Your task to perform on an android device: Show me recent news Image 0: 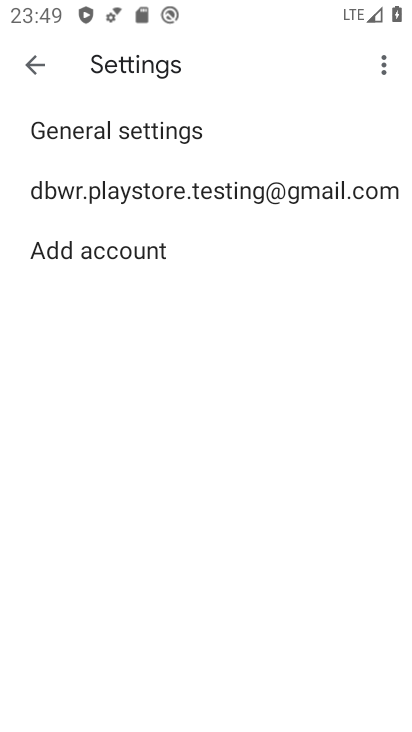
Step 0: press home button
Your task to perform on an android device: Show me recent news Image 1: 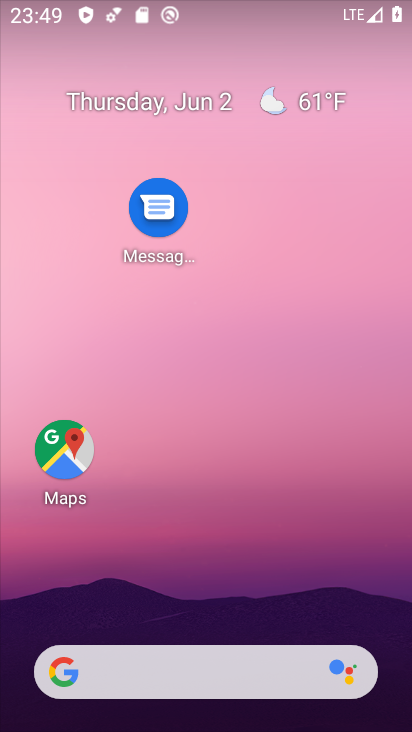
Step 1: click (188, 649)
Your task to perform on an android device: Show me recent news Image 2: 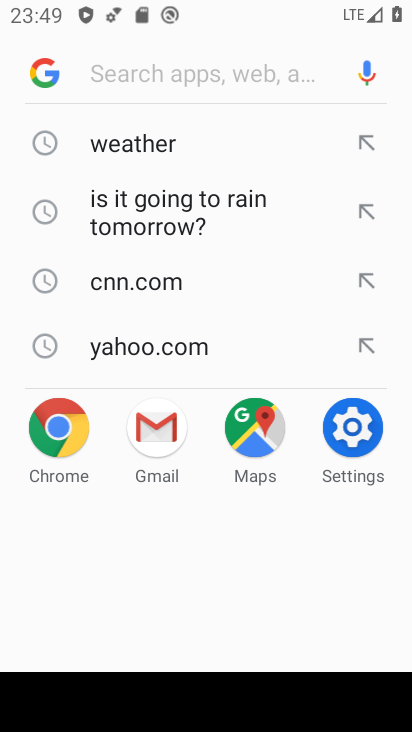
Step 2: type "recents news"
Your task to perform on an android device: Show me recent news Image 3: 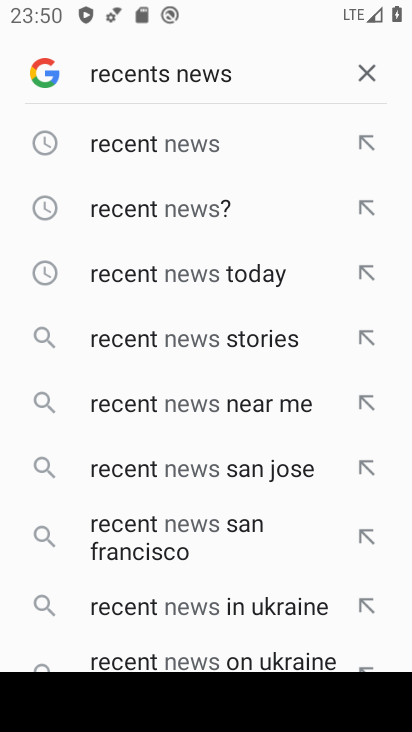
Step 3: click (134, 128)
Your task to perform on an android device: Show me recent news Image 4: 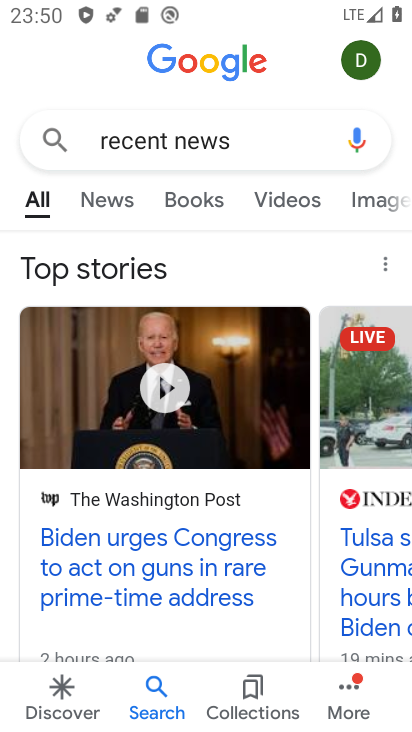
Step 4: task complete